Your task to perform on an android device: create a new album in the google photos Image 0: 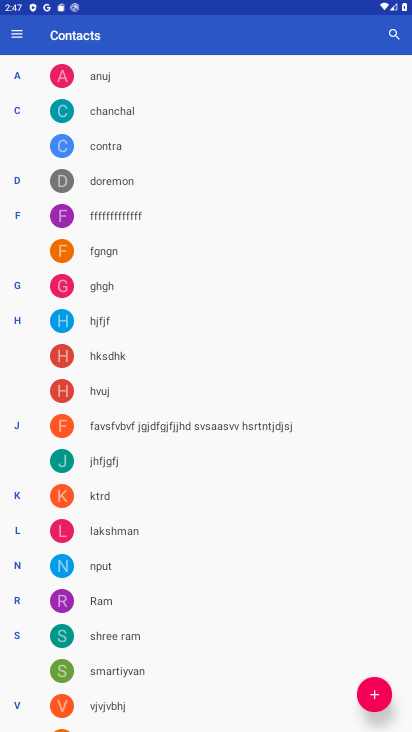
Step 0: press home button
Your task to perform on an android device: create a new album in the google photos Image 1: 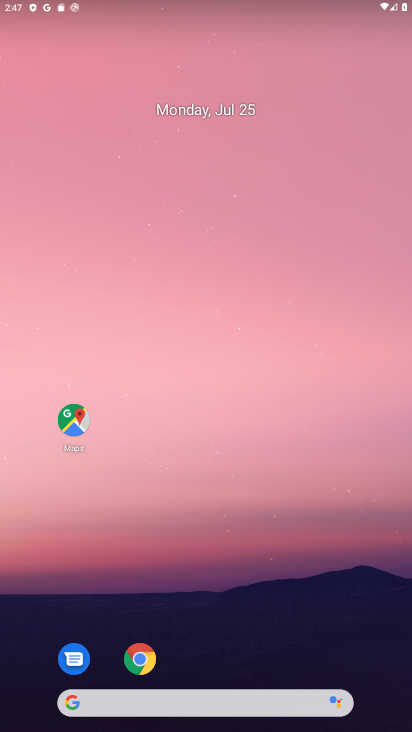
Step 1: drag from (208, 671) to (146, 87)
Your task to perform on an android device: create a new album in the google photos Image 2: 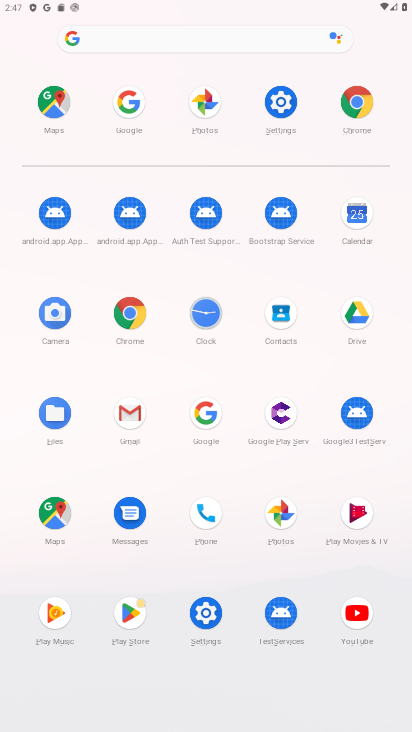
Step 2: click (292, 518)
Your task to perform on an android device: create a new album in the google photos Image 3: 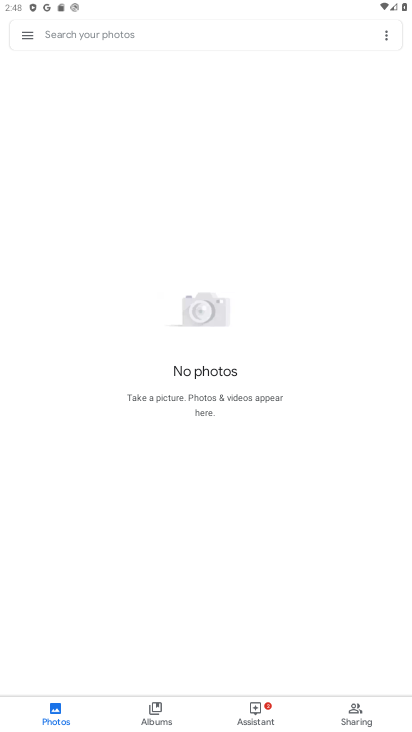
Step 3: task complete